Your task to perform on an android device: Search for seafood restaurants on Google Maps Image 0: 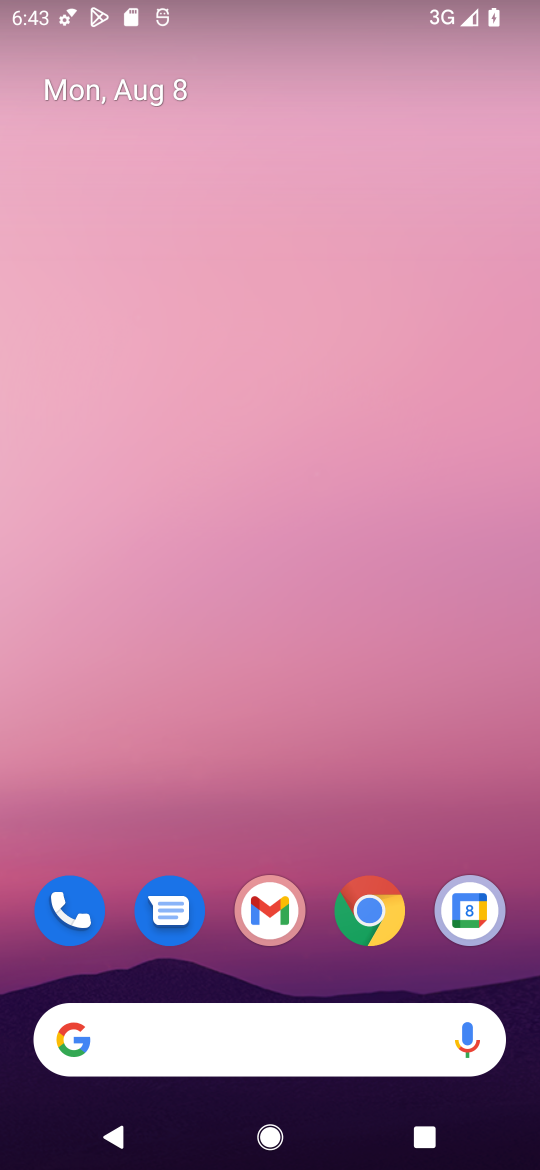
Step 0: drag from (279, 796) to (145, 116)
Your task to perform on an android device: Search for seafood restaurants on Google Maps Image 1: 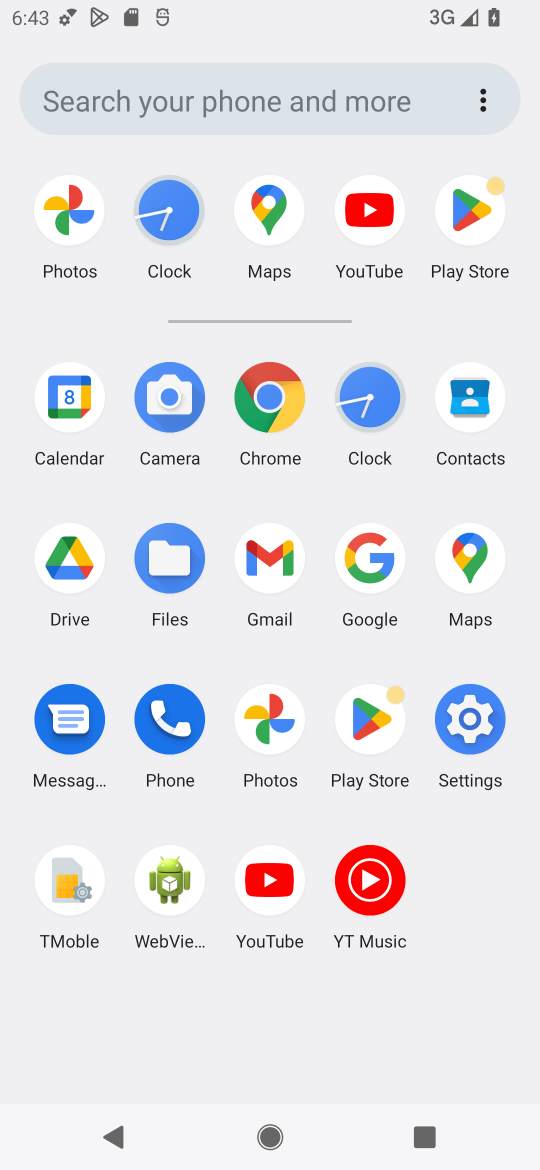
Step 1: click (467, 574)
Your task to perform on an android device: Search for seafood restaurants on Google Maps Image 2: 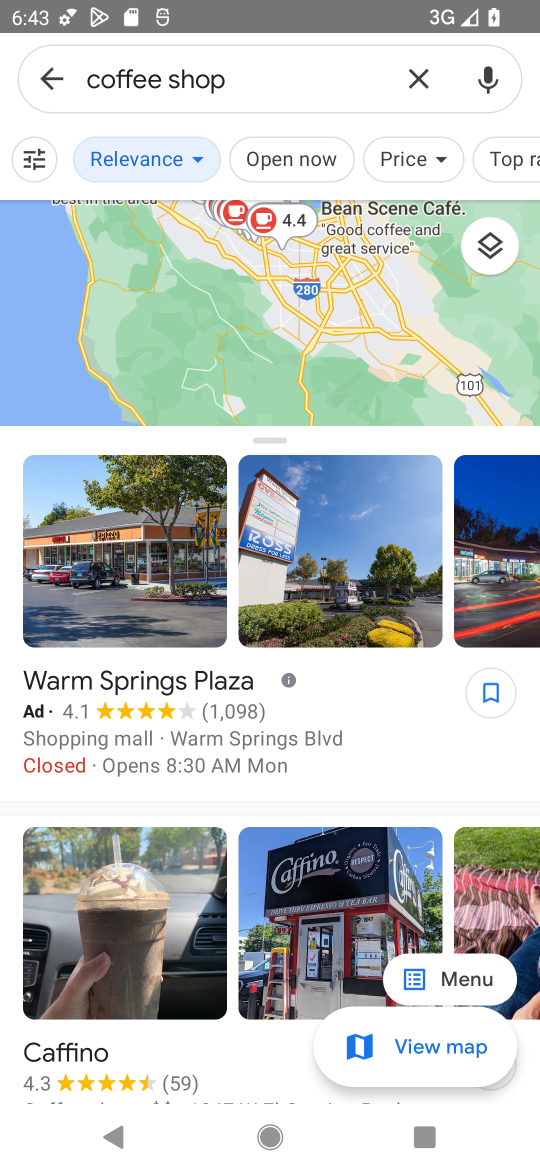
Step 2: click (420, 81)
Your task to perform on an android device: Search for seafood restaurants on Google Maps Image 3: 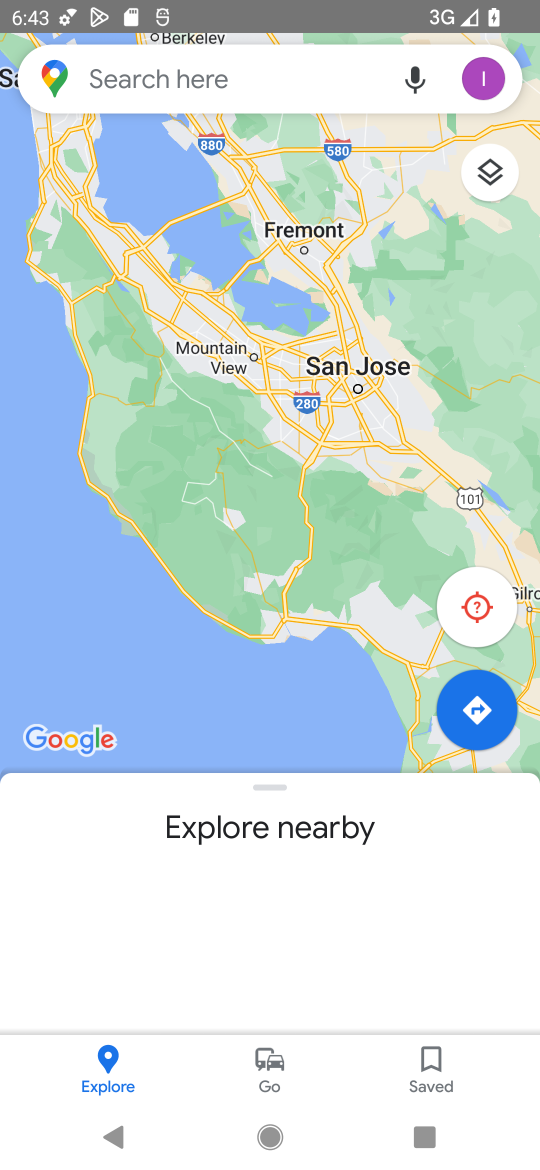
Step 3: click (226, 91)
Your task to perform on an android device: Search for seafood restaurants on Google Maps Image 4: 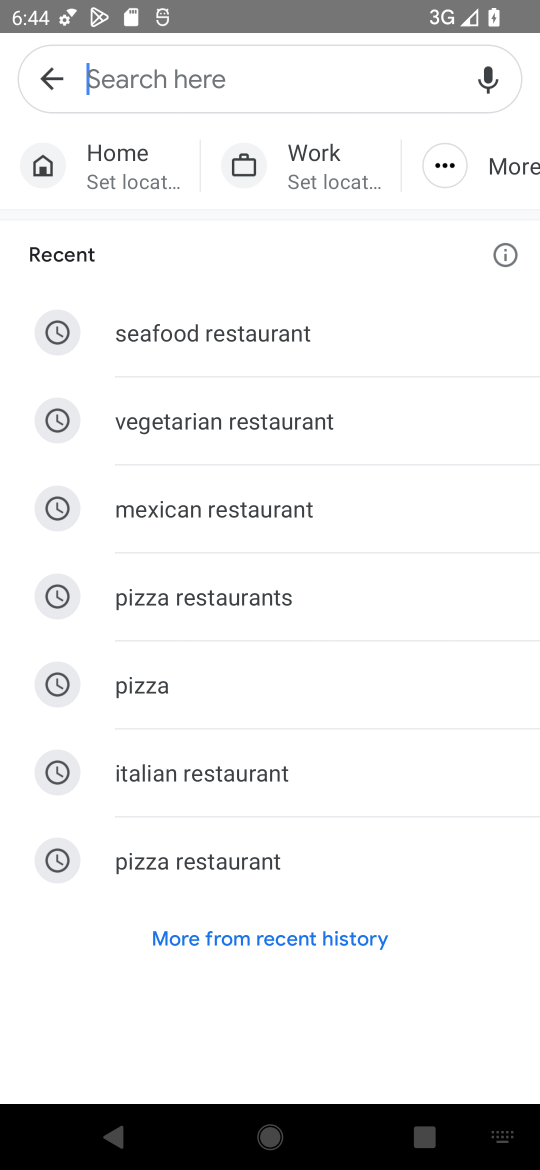
Step 4: click (199, 325)
Your task to perform on an android device: Search for seafood restaurants on Google Maps Image 5: 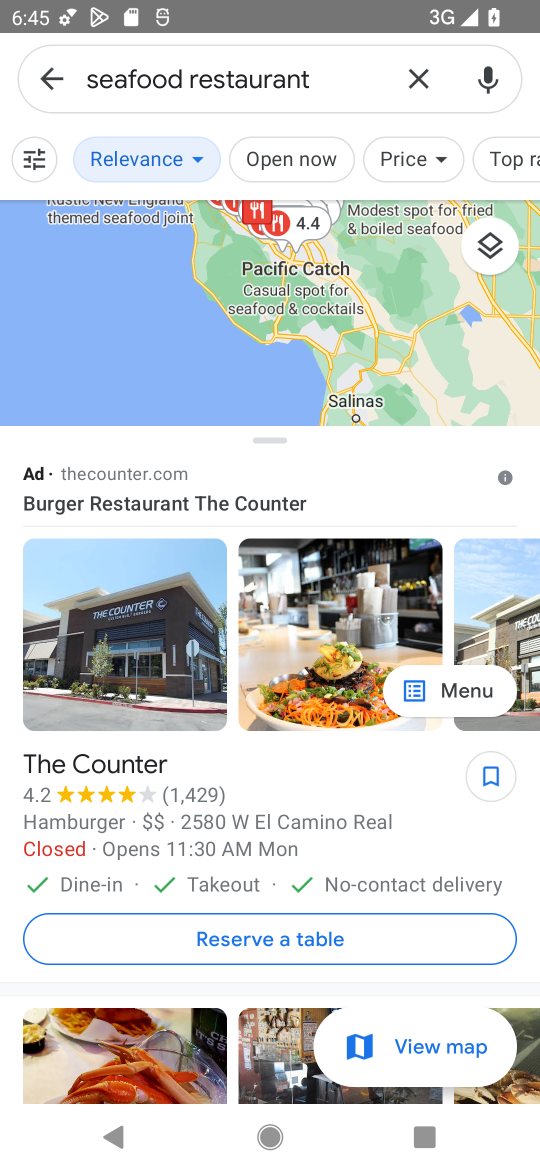
Step 5: task complete